Your task to perform on an android device: Open calendar and show me the fourth week of next month Image 0: 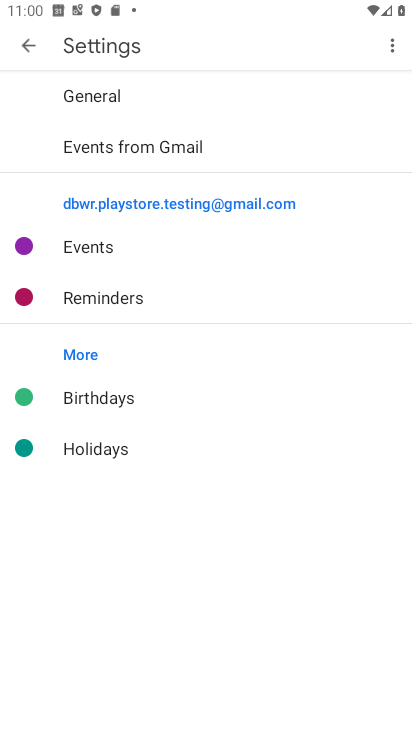
Step 0: press home button
Your task to perform on an android device: Open calendar and show me the fourth week of next month Image 1: 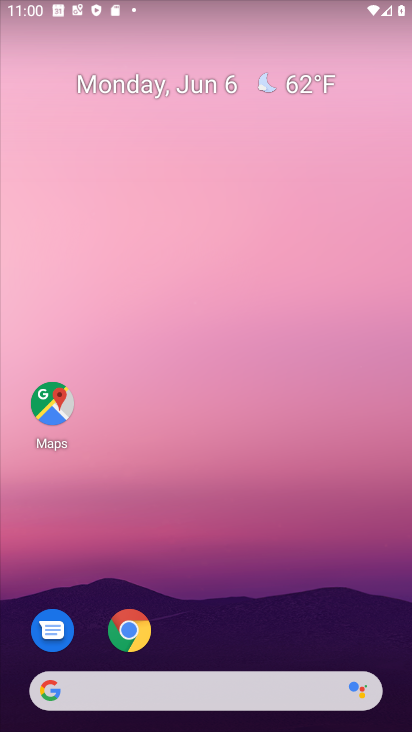
Step 1: drag from (326, 579) to (325, 145)
Your task to perform on an android device: Open calendar and show me the fourth week of next month Image 2: 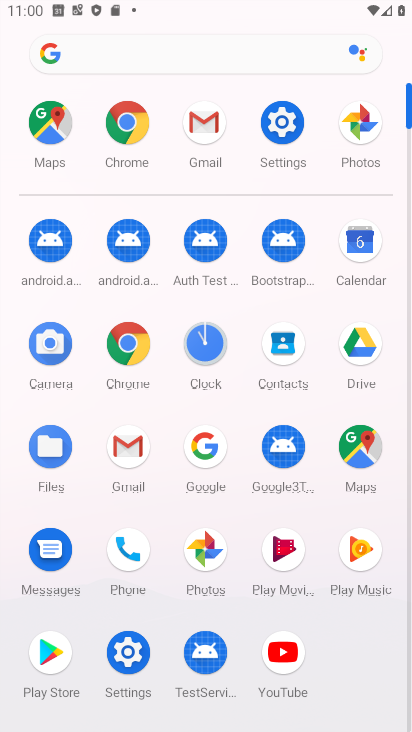
Step 2: click (357, 258)
Your task to perform on an android device: Open calendar and show me the fourth week of next month Image 3: 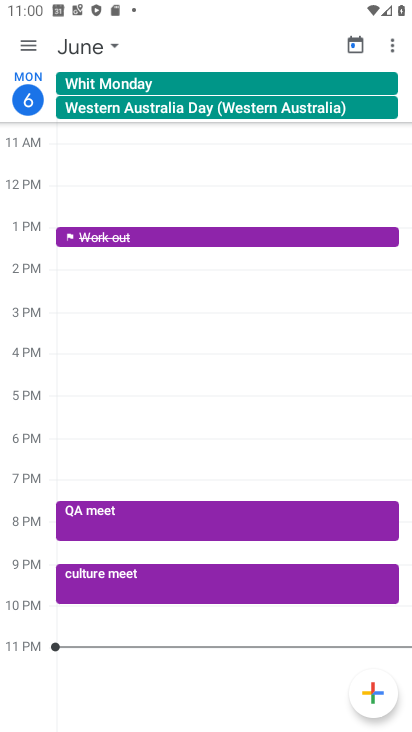
Step 3: click (73, 44)
Your task to perform on an android device: Open calendar and show me the fourth week of next month Image 4: 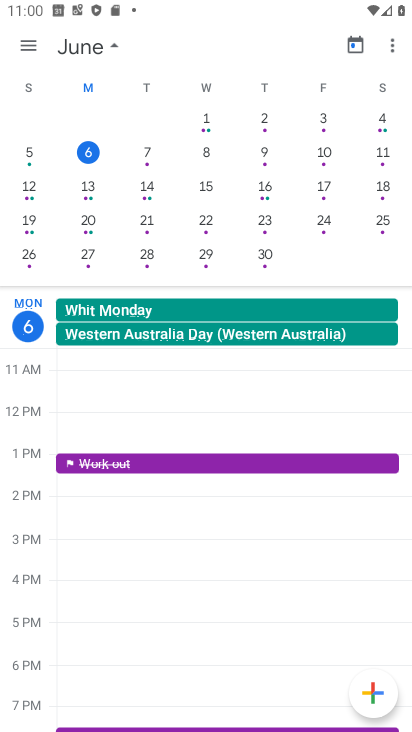
Step 4: drag from (364, 199) to (4, 206)
Your task to perform on an android device: Open calendar and show me the fourth week of next month Image 5: 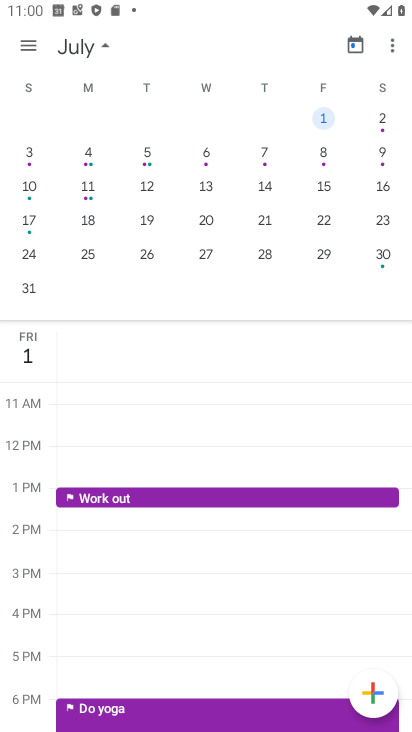
Step 5: click (27, 225)
Your task to perform on an android device: Open calendar and show me the fourth week of next month Image 6: 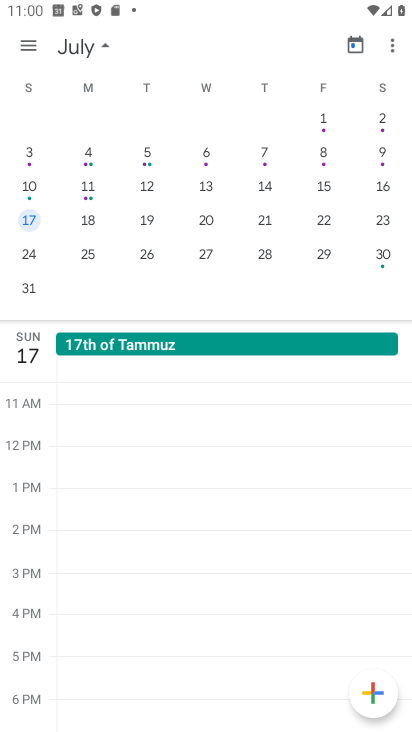
Step 6: task complete